Your task to perform on an android device: Show me the alarms in the clock app Image 0: 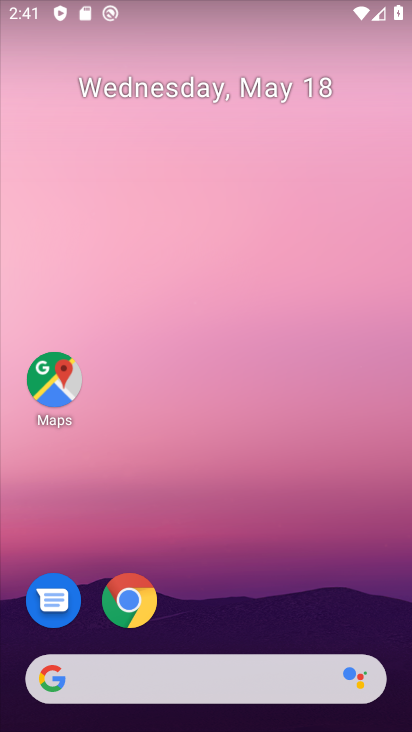
Step 0: press home button
Your task to perform on an android device: Show me the alarms in the clock app Image 1: 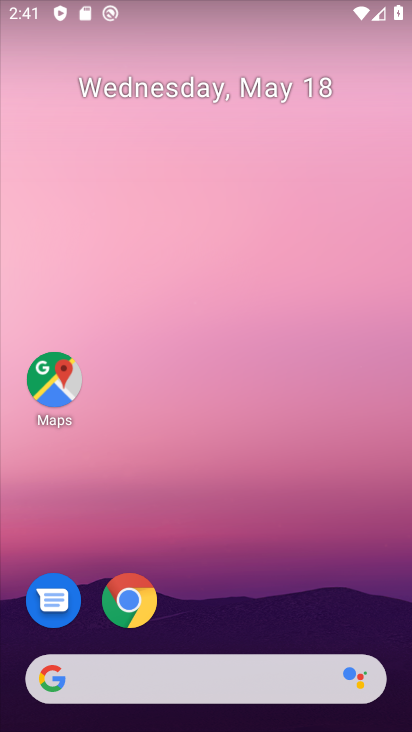
Step 1: drag from (373, 626) to (302, 181)
Your task to perform on an android device: Show me the alarms in the clock app Image 2: 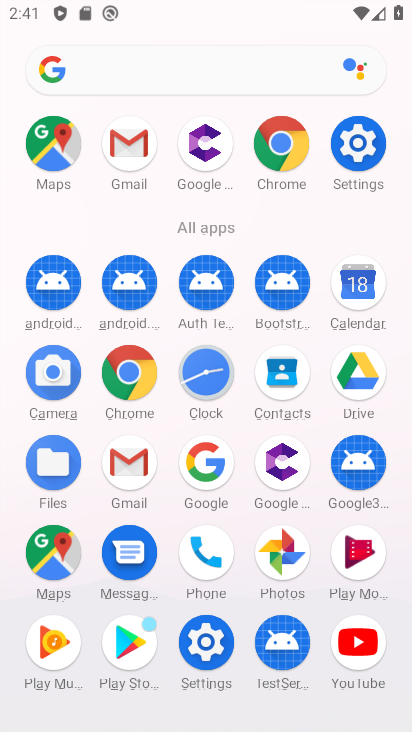
Step 2: click (214, 380)
Your task to perform on an android device: Show me the alarms in the clock app Image 3: 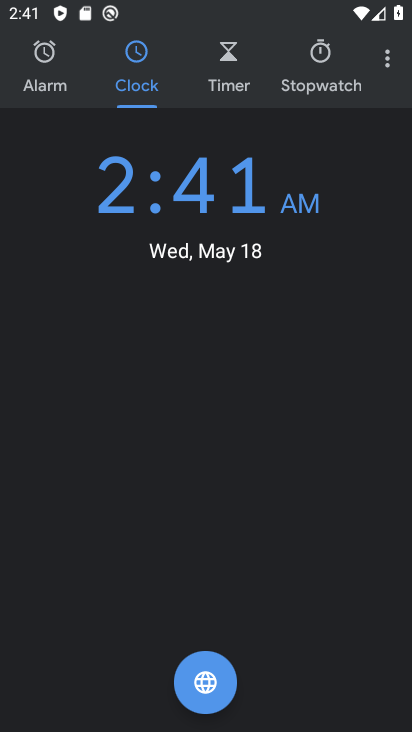
Step 3: drag from (387, 80) to (265, 116)
Your task to perform on an android device: Show me the alarms in the clock app Image 4: 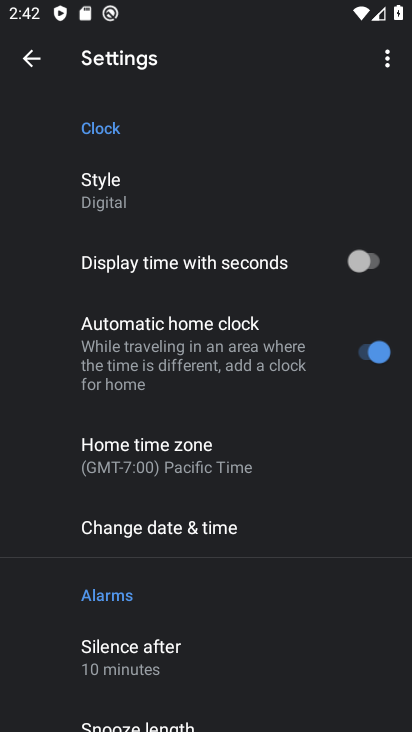
Step 4: click (9, 56)
Your task to perform on an android device: Show me the alarms in the clock app Image 5: 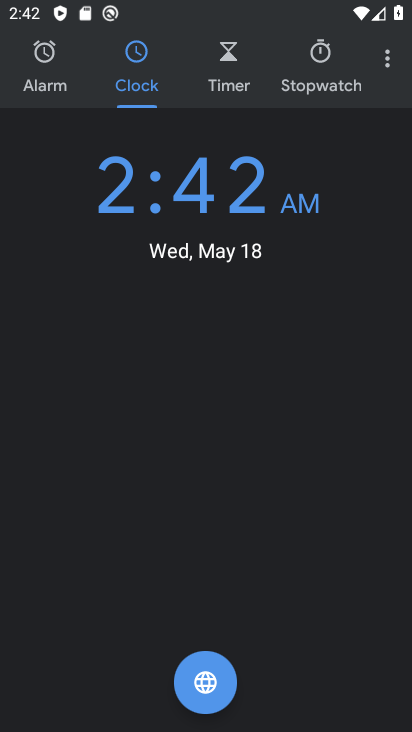
Step 5: click (30, 51)
Your task to perform on an android device: Show me the alarms in the clock app Image 6: 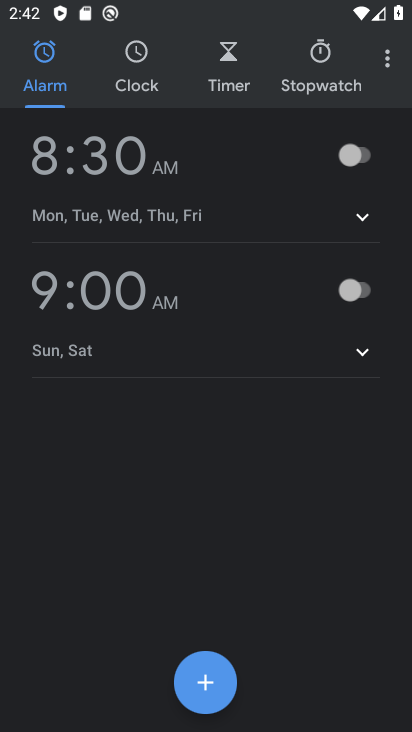
Step 6: task complete